Your task to perform on an android device: turn on javascript in the chrome app Image 0: 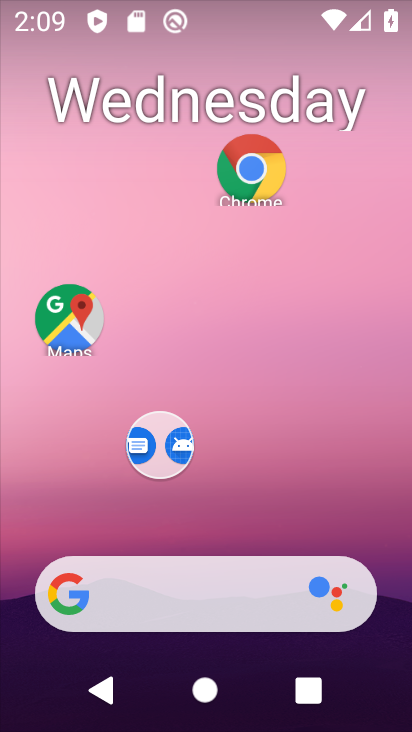
Step 0: click (264, 168)
Your task to perform on an android device: turn on javascript in the chrome app Image 1: 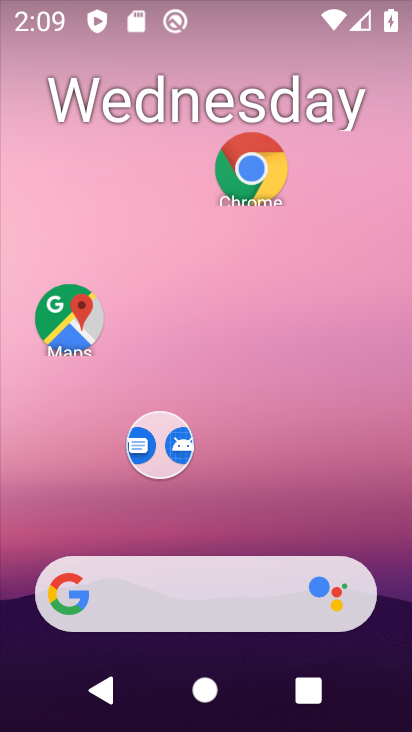
Step 1: click (242, 183)
Your task to perform on an android device: turn on javascript in the chrome app Image 2: 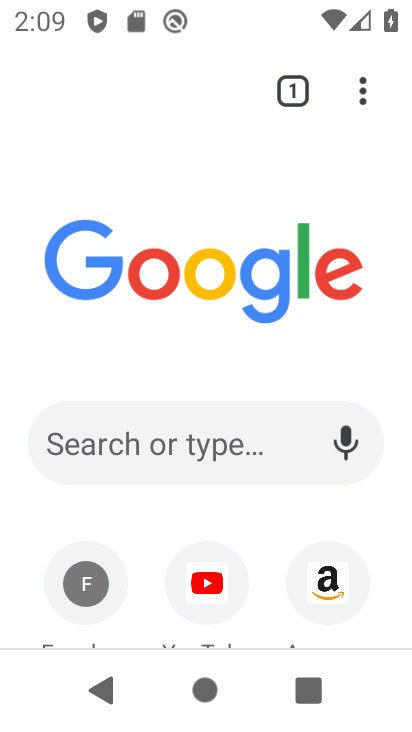
Step 2: click (354, 119)
Your task to perform on an android device: turn on javascript in the chrome app Image 3: 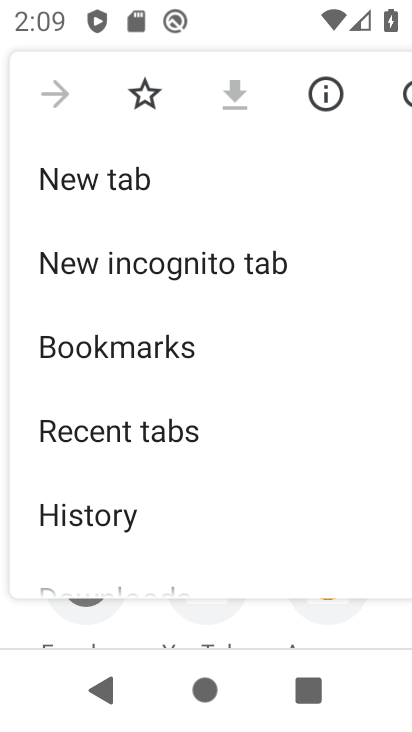
Step 3: drag from (264, 515) to (255, 261)
Your task to perform on an android device: turn on javascript in the chrome app Image 4: 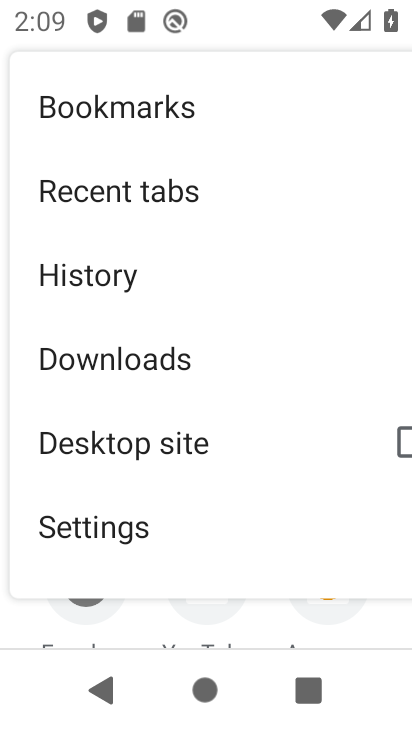
Step 4: click (124, 523)
Your task to perform on an android device: turn on javascript in the chrome app Image 5: 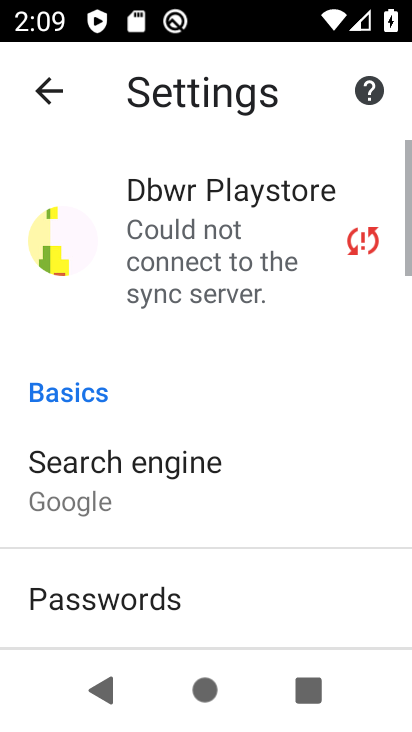
Step 5: drag from (124, 523) to (116, 61)
Your task to perform on an android device: turn on javascript in the chrome app Image 6: 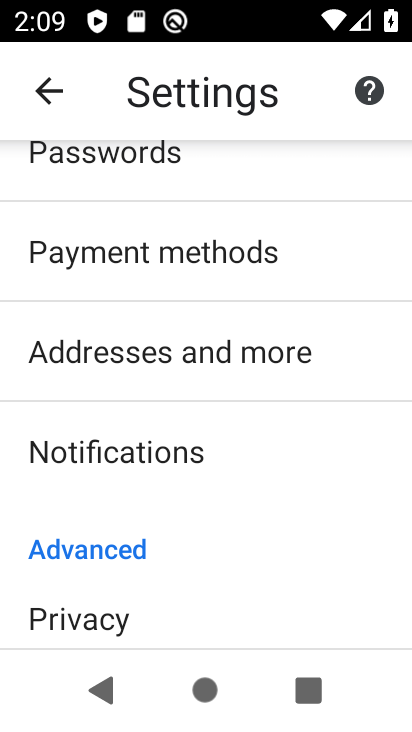
Step 6: drag from (80, 541) to (111, 174)
Your task to perform on an android device: turn on javascript in the chrome app Image 7: 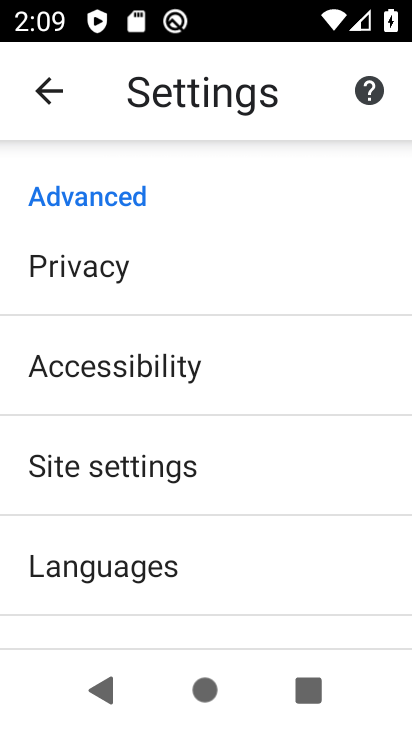
Step 7: click (72, 466)
Your task to perform on an android device: turn on javascript in the chrome app Image 8: 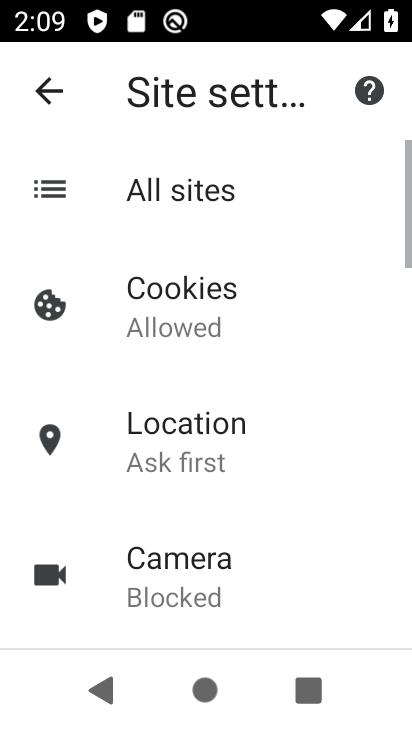
Step 8: drag from (132, 558) to (129, 121)
Your task to perform on an android device: turn on javascript in the chrome app Image 9: 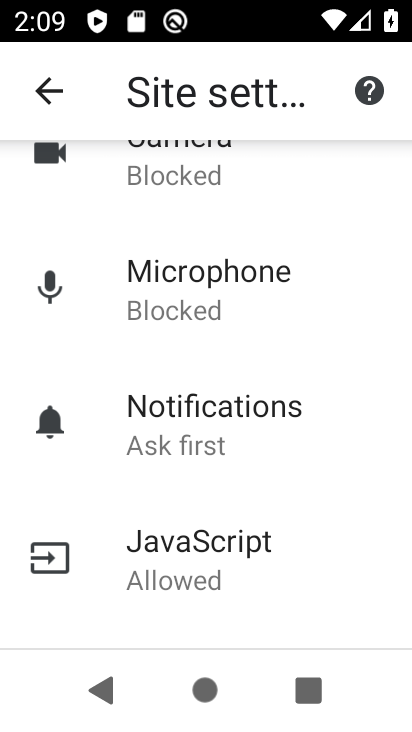
Step 9: click (228, 520)
Your task to perform on an android device: turn on javascript in the chrome app Image 10: 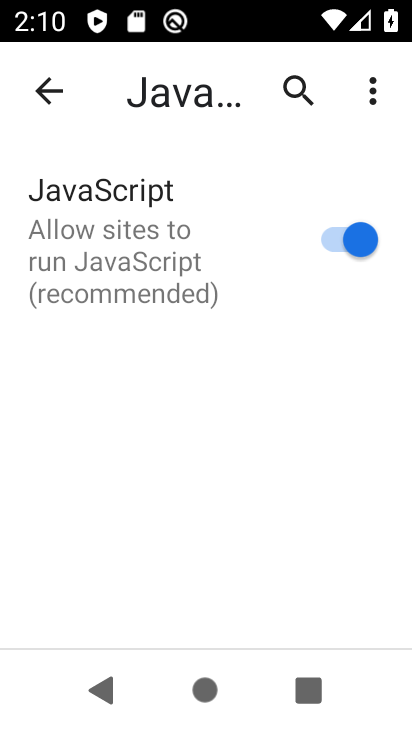
Step 10: task complete